Your task to perform on an android device: Open ESPN.com Image 0: 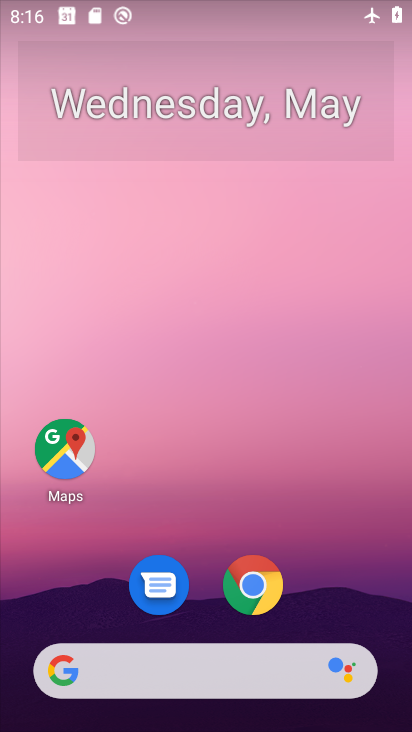
Step 0: click (262, 671)
Your task to perform on an android device: Open ESPN.com Image 1: 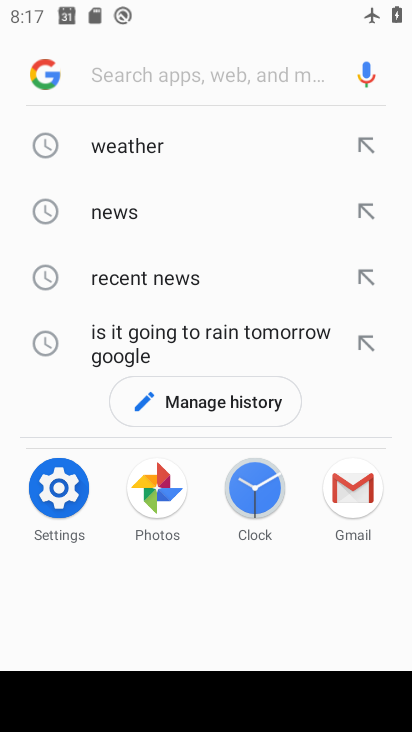
Step 1: type "espn.com"
Your task to perform on an android device: Open ESPN.com Image 2: 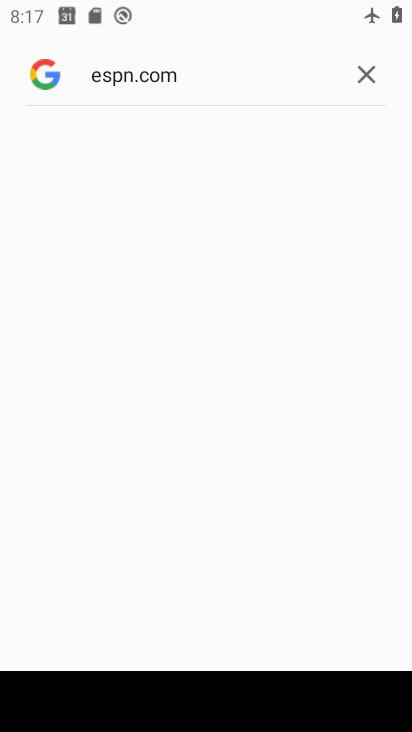
Step 2: task complete